Your task to perform on an android device: change the clock display to show seconds Image 0: 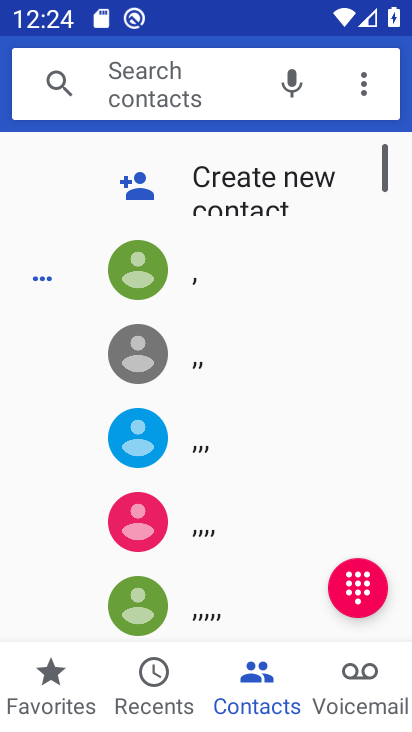
Step 0: task complete